Your task to perform on an android device: Go to Android settings Image 0: 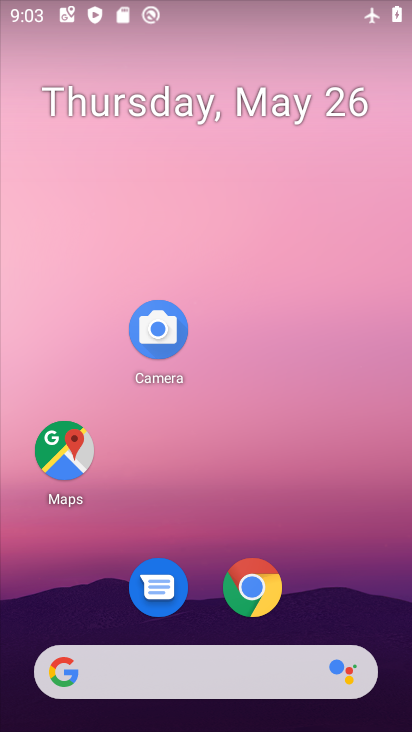
Step 0: drag from (187, 601) to (190, 141)
Your task to perform on an android device: Go to Android settings Image 1: 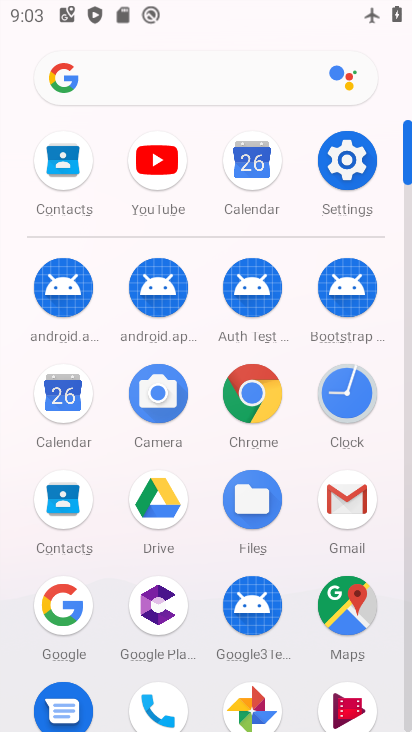
Step 1: click (359, 169)
Your task to perform on an android device: Go to Android settings Image 2: 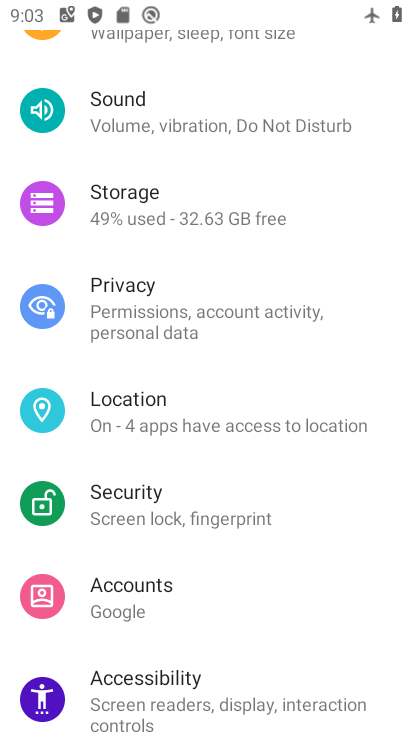
Step 2: task complete